Your task to perform on an android device: toggle sleep mode Image 0: 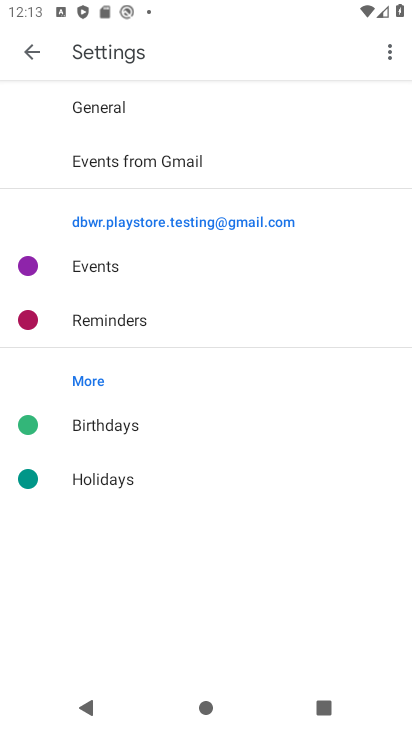
Step 0: task impossible